Your task to perform on an android device: turn smart compose on in the gmail app Image 0: 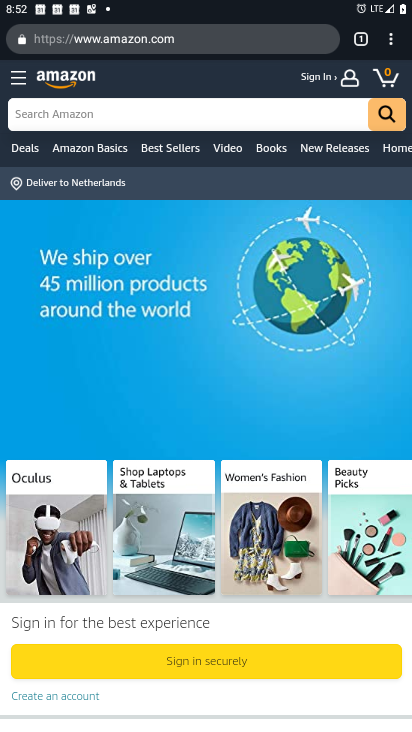
Step 0: press home button
Your task to perform on an android device: turn smart compose on in the gmail app Image 1: 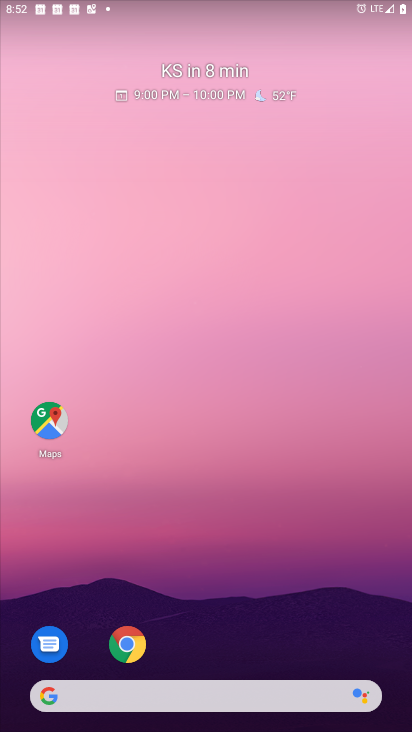
Step 1: drag from (364, 647) to (289, 181)
Your task to perform on an android device: turn smart compose on in the gmail app Image 2: 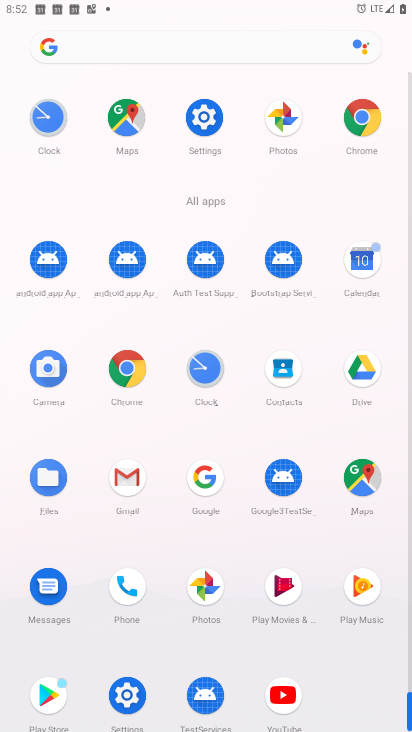
Step 2: click (124, 475)
Your task to perform on an android device: turn smart compose on in the gmail app Image 3: 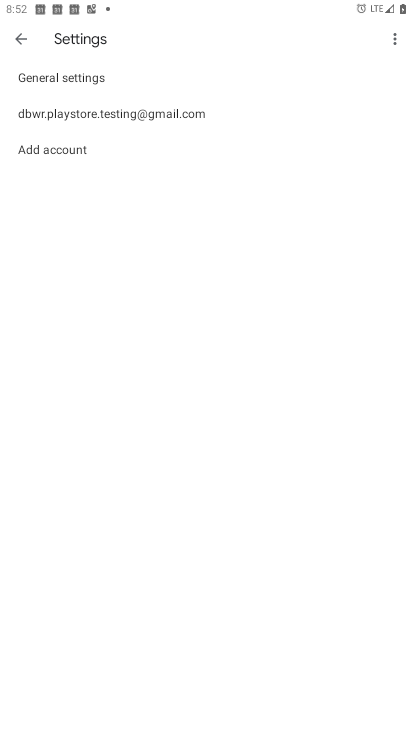
Step 3: click (92, 106)
Your task to perform on an android device: turn smart compose on in the gmail app Image 4: 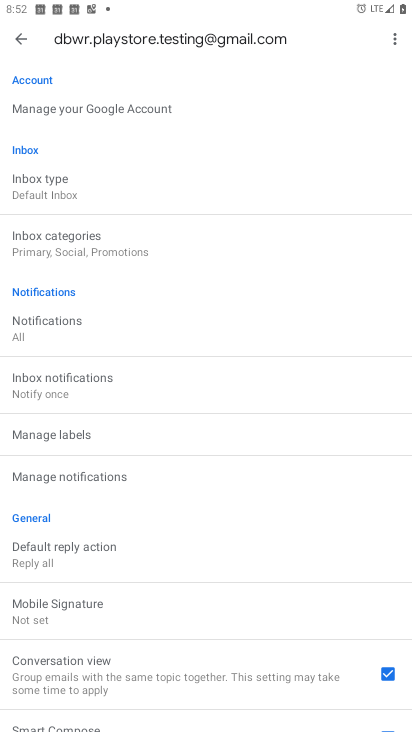
Step 4: task complete